Your task to perform on an android device: Go to Google Image 0: 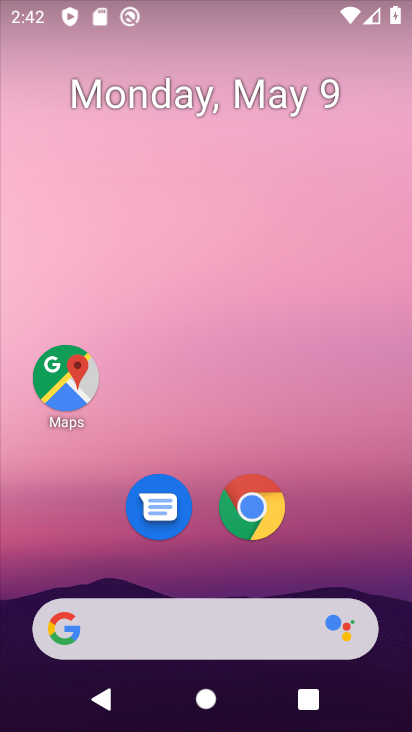
Step 0: click (241, 520)
Your task to perform on an android device: Go to Google Image 1: 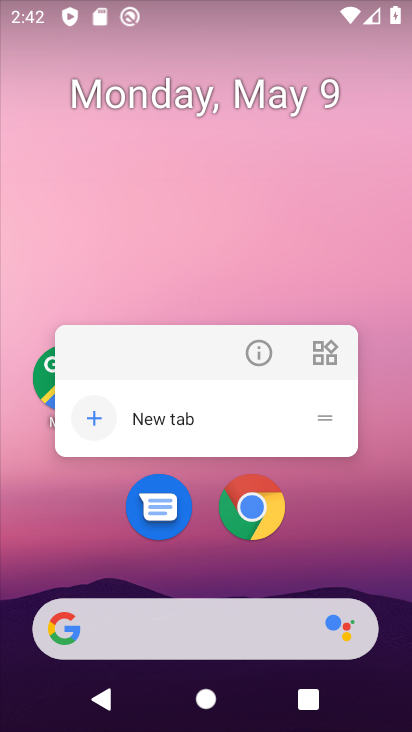
Step 1: click (241, 520)
Your task to perform on an android device: Go to Google Image 2: 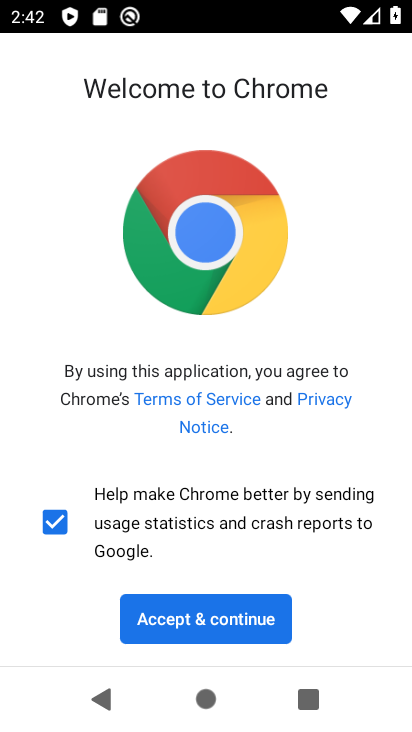
Step 2: click (239, 643)
Your task to perform on an android device: Go to Google Image 3: 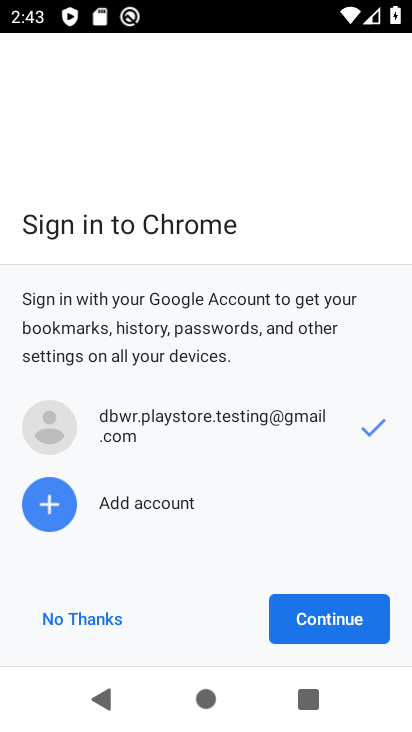
Step 3: click (246, 633)
Your task to perform on an android device: Go to Google Image 4: 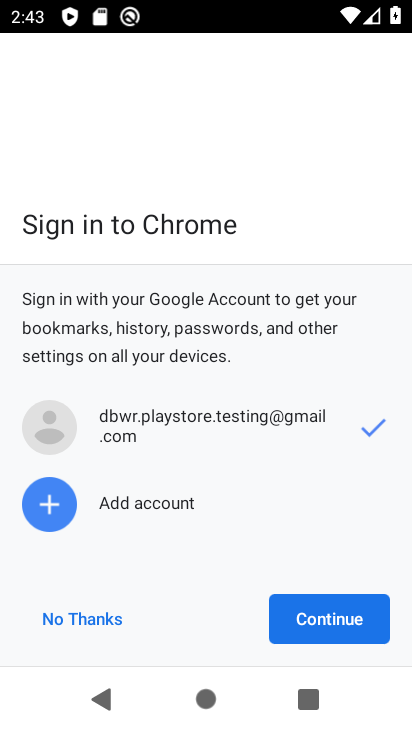
Step 4: click (117, 617)
Your task to perform on an android device: Go to Google Image 5: 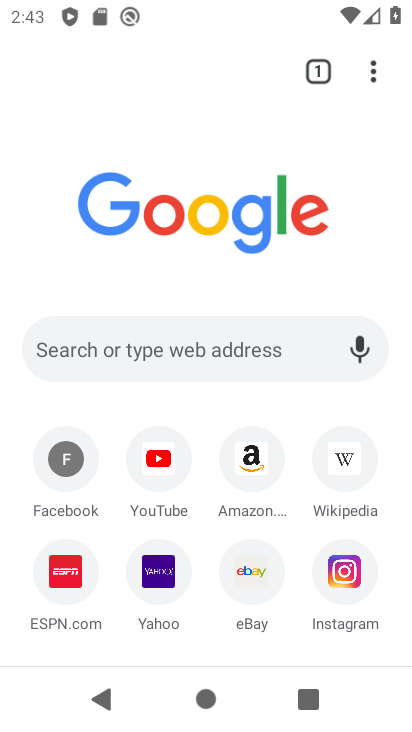
Step 5: click (231, 339)
Your task to perform on an android device: Go to Google Image 6: 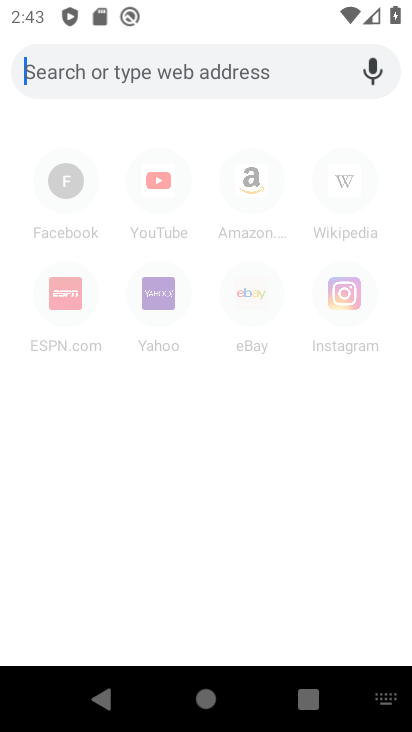
Step 6: task complete